Your task to perform on an android device: empty trash in the gmail app Image 0: 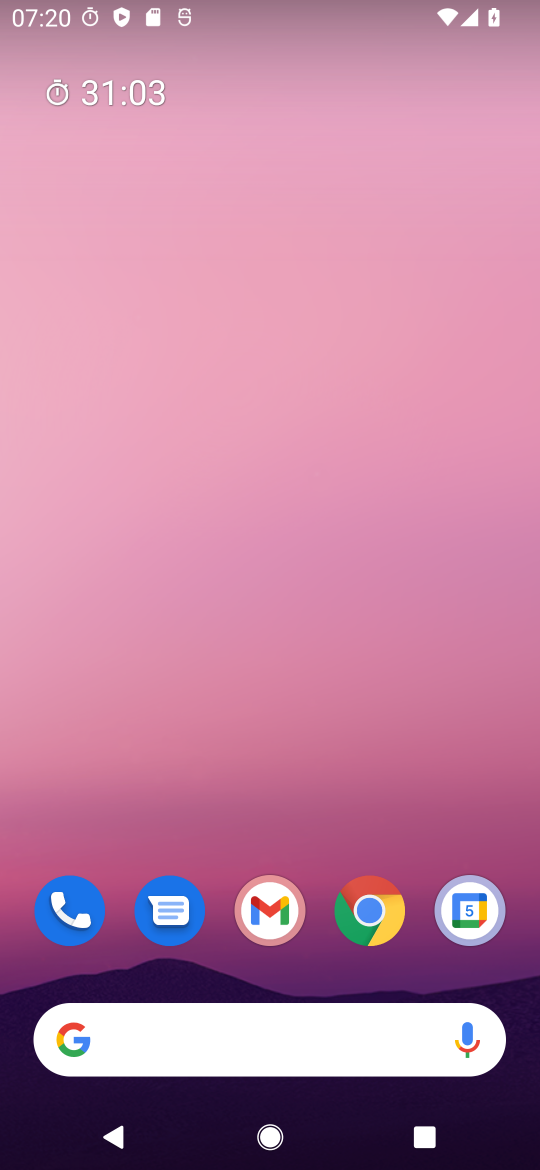
Step 0: drag from (210, 1046) to (197, 200)
Your task to perform on an android device: empty trash in the gmail app Image 1: 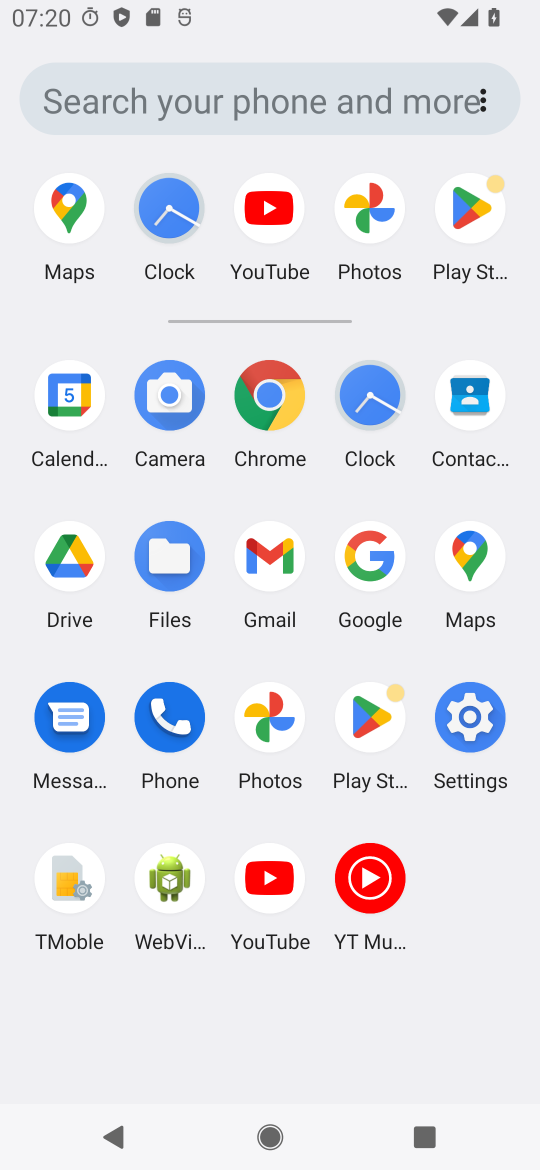
Step 1: click (269, 536)
Your task to perform on an android device: empty trash in the gmail app Image 2: 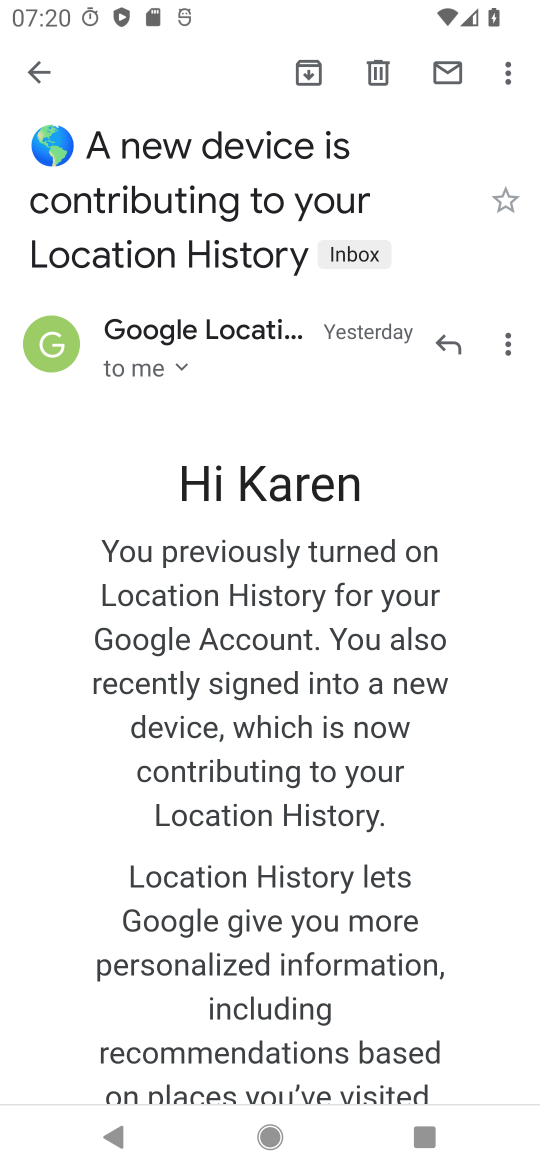
Step 2: press back button
Your task to perform on an android device: empty trash in the gmail app Image 3: 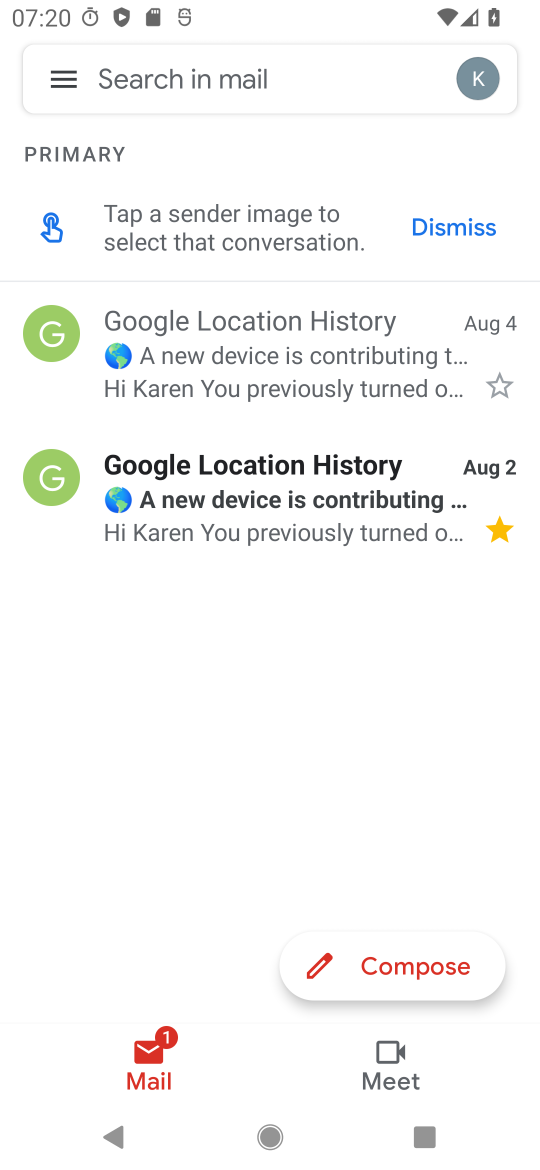
Step 3: click (77, 64)
Your task to perform on an android device: empty trash in the gmail app Image 4: 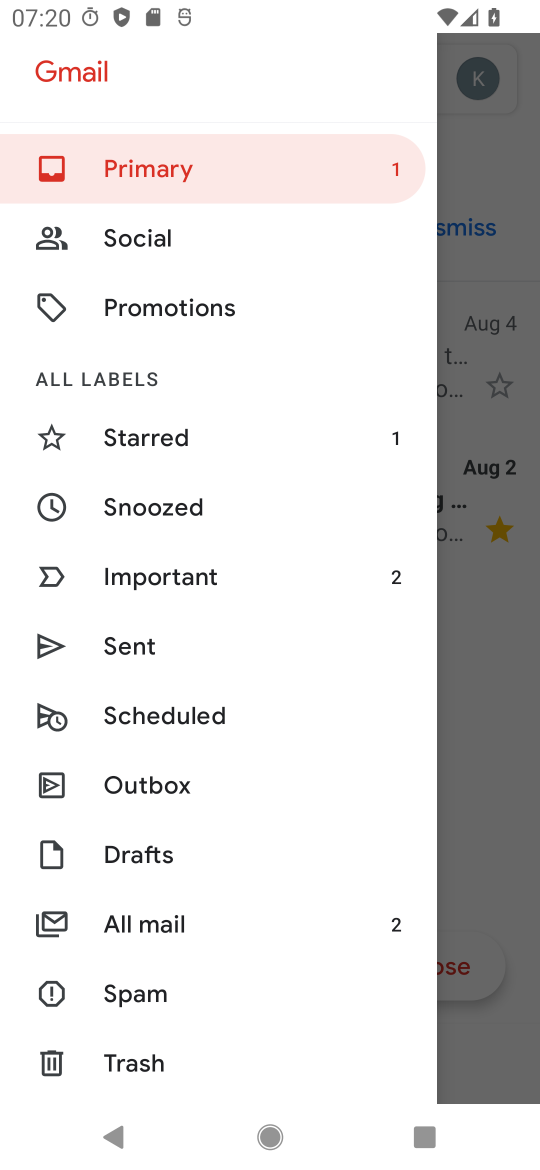
Step 4: click (132, 1049)
Your task to perform on an android device: empty trash in the gmail app Image 5: 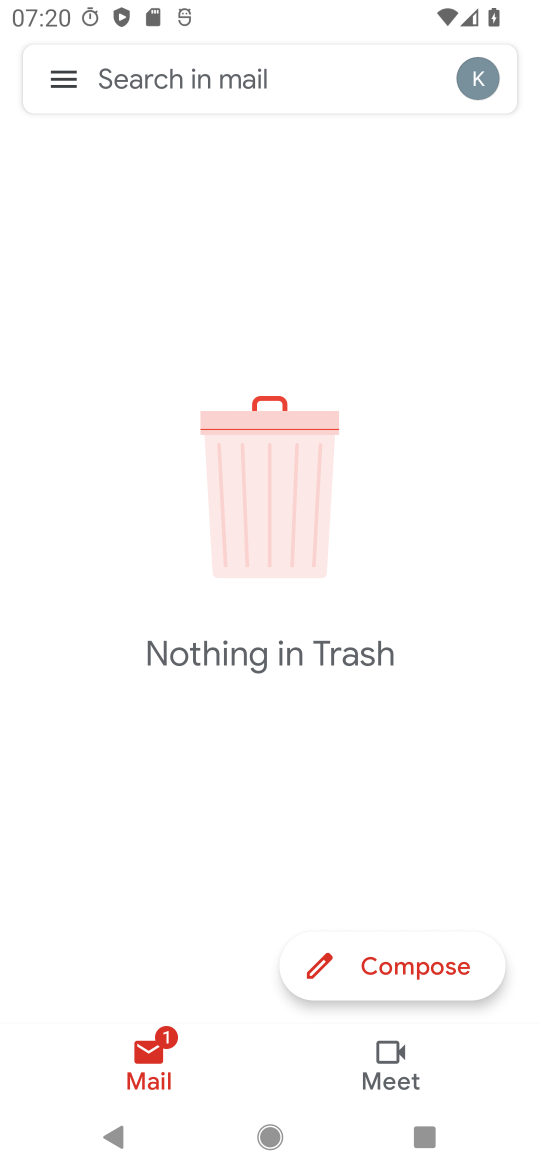
Step 5: task complete